Your task to perform on an android device: Open my contact list Image 0: 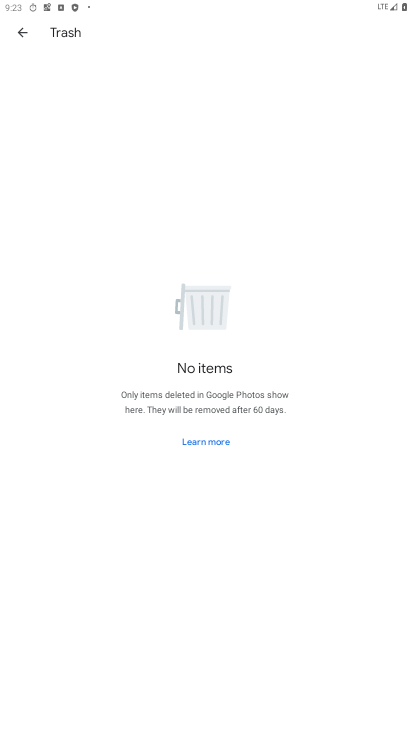
Step 0: press home button
Your task to perform on an android device: Open my contact list Image 1: 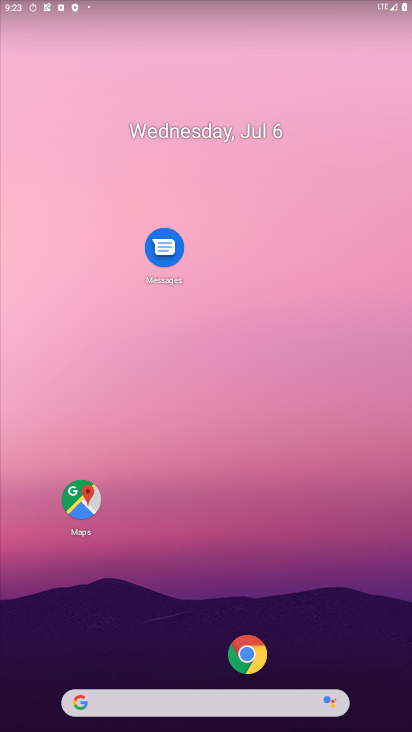
Step 1: drag from (188, 645) to (226, 132)
Your task to perform on an android device: Open my contact list Image 2: 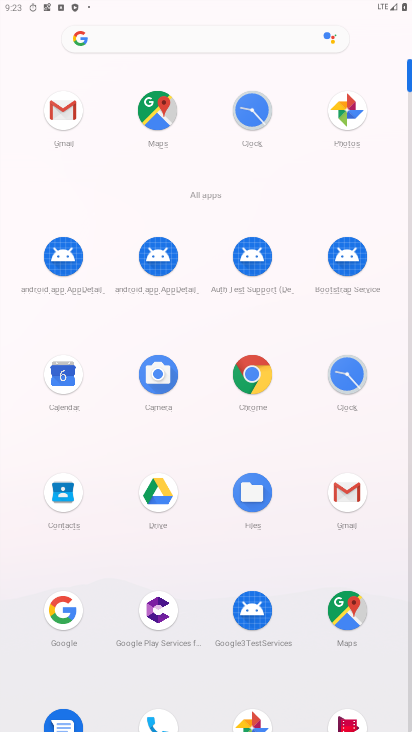
Step 2: drag from (145, 446) to (146, 297)
Your task to perform on an android device: Open my contact list Image 3: 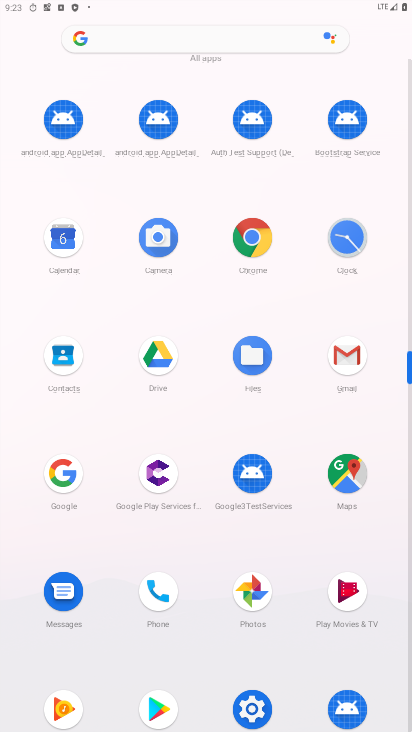
Step 3: drag from (209, 653) to (257, 240)
Your task to perform on an android device: Open my contact list Image 4: 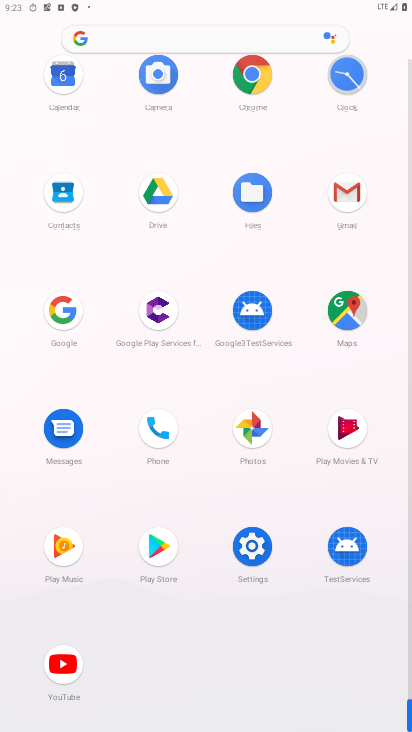
Step 4: click (66, 192)
Your task to perform on an android device: Open my contact list Image 5: 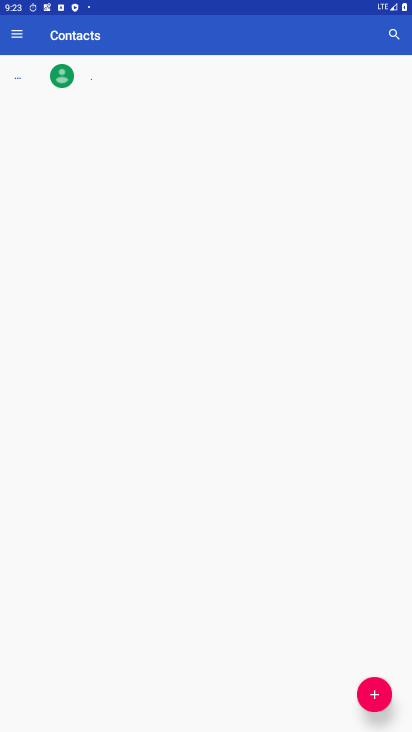
Step 5: task complete